Your task to perform on an android device: Open settings on Google Maps Image 0: 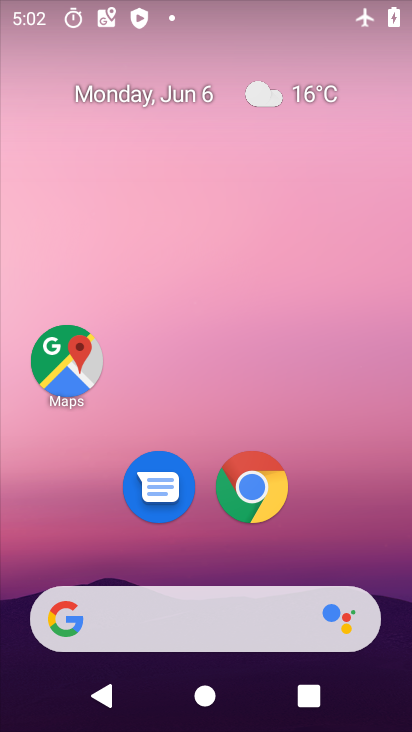
Step 0: click (56, 368)
Your task to perform on an android device: Open settings on Google Maps Image 1: 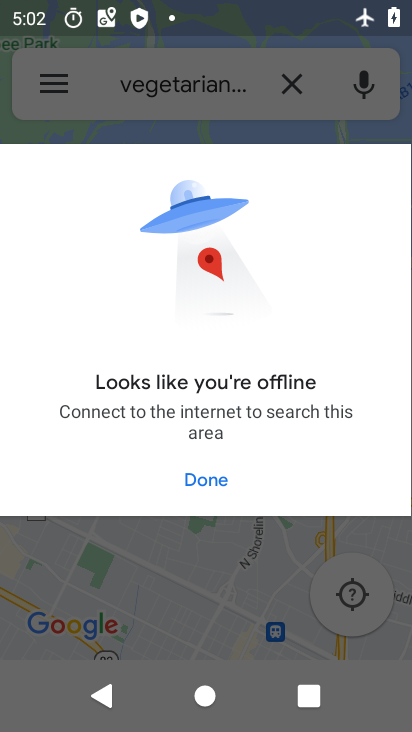
Step 1: click (215, 483)
Your task to perform on an android device: Open settings on Google Maps Image 2: 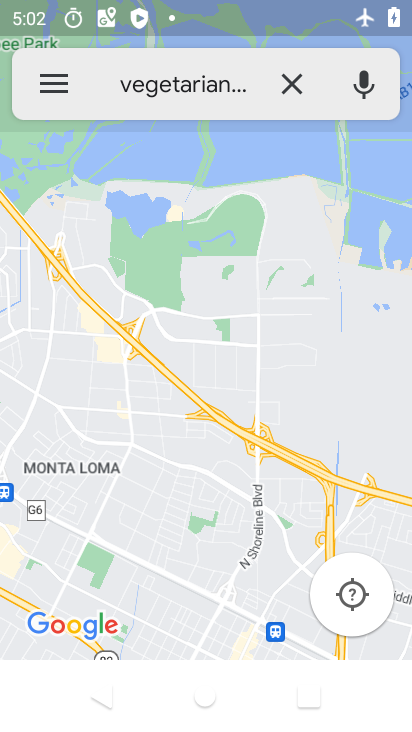
Step 2: click (58, 76)
Your task to perform on an android device: Open settings on Google Maps Image 3: 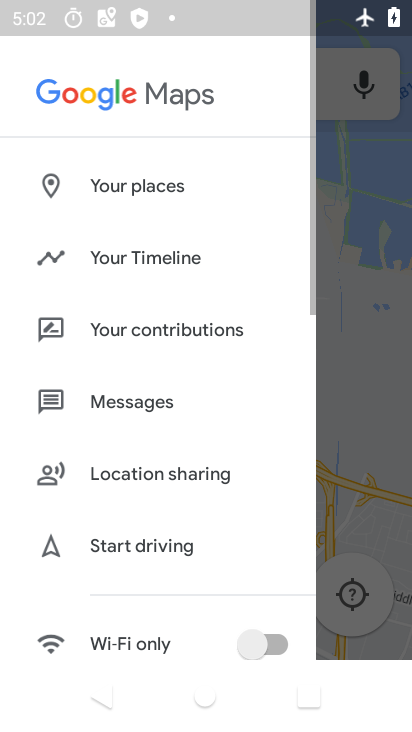
Step 3: drag from (168, 576) to (206, 139)
Your task to perform on an android device: Open settings on Google Maps Image 4: 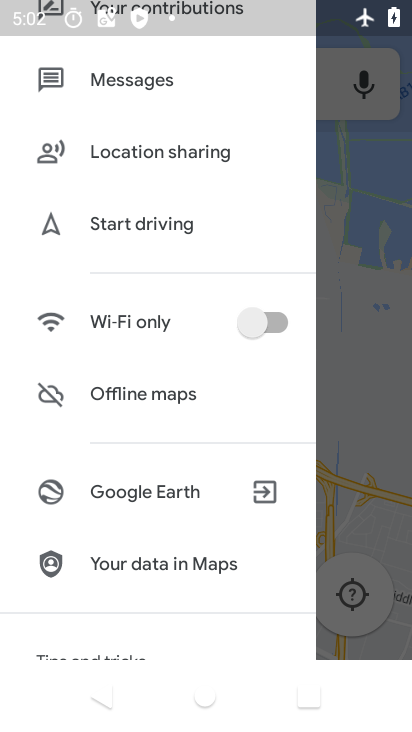
Step 4: drag from (145, 626) to (169, 208)
Your task to perform on an android device: Open settings on Google Maps Image 5: 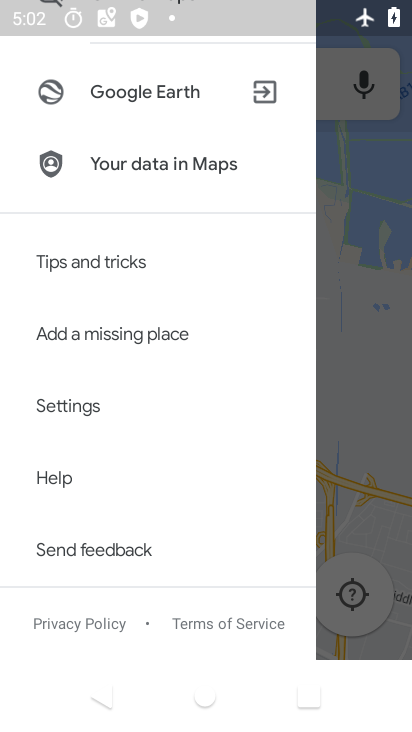
Step 5: click (77, 406)
Your task to perform on an android device: Open settings on Google Maps Image 6: 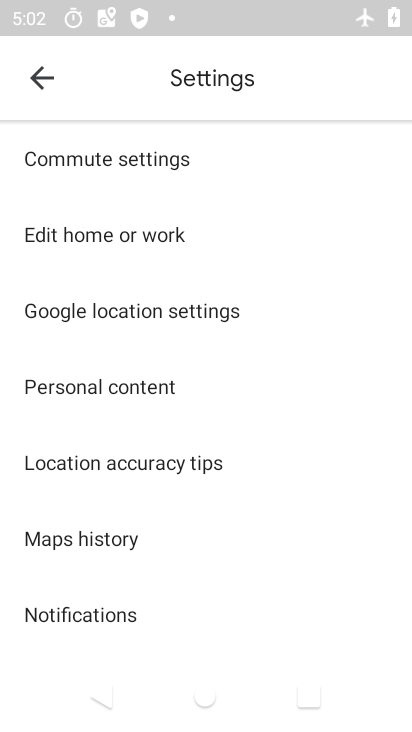
Step 6: task complete